Your task to perform on an android device: Find coffee shops on Maps Image 0: 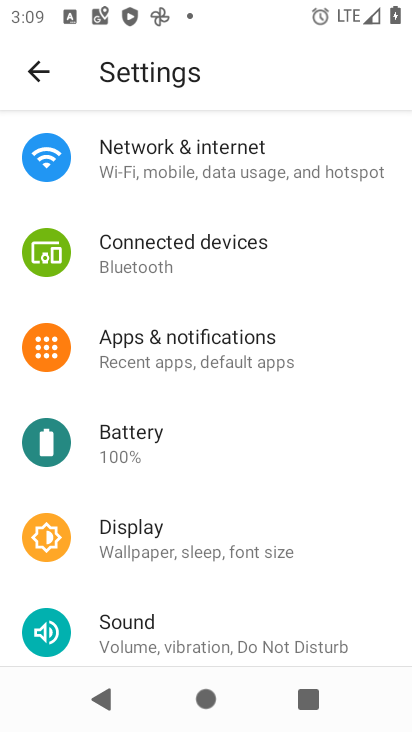
Step 0: press home button
Your task to perform on an android device: Find coffee shops on Maps Image 1: 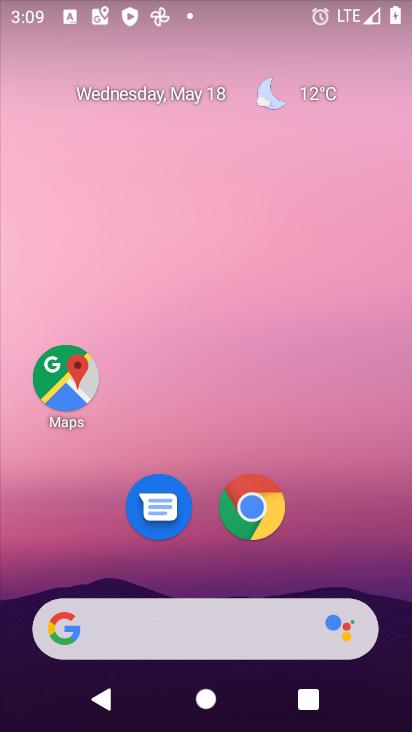
Step 1: click (65, 377)
Your task to perform on an android device: Find coffee shops on Maps Image 2: 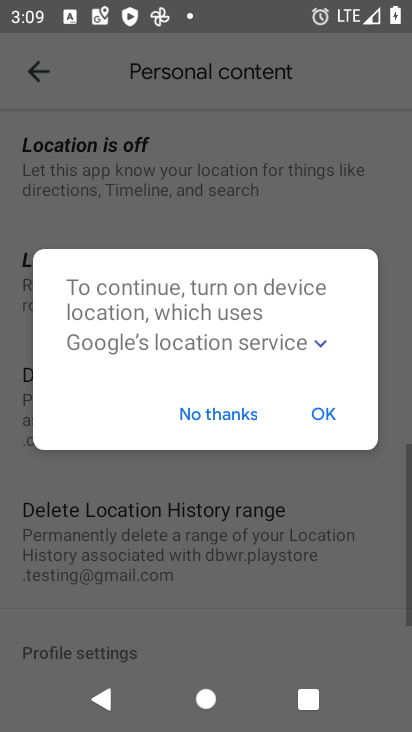
Step 2: press back button
Your task to perform on an android device: Find coffee shops on Maps Image 3: 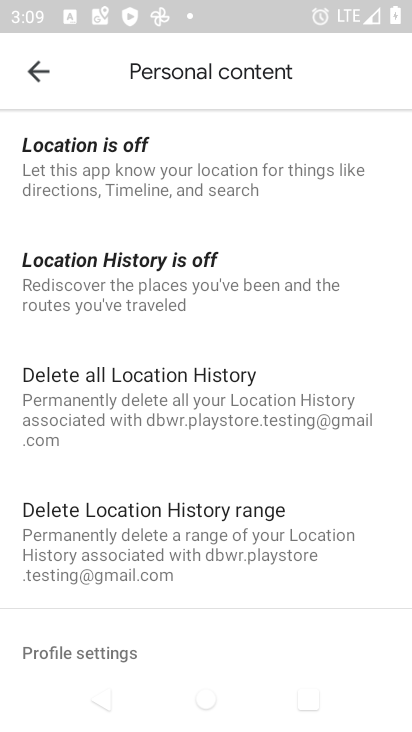
Step 3: press back button
Your task to perform on an android device: Find coffee shops on Maps Image 4: 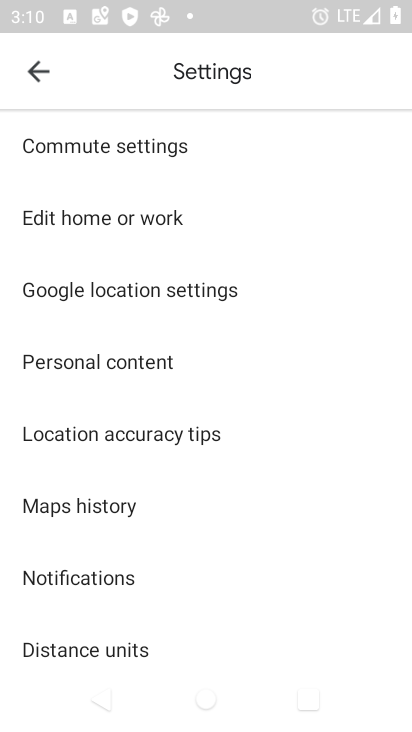
Step 4: press back button
Your task to perform on an android device: Find coffee shops on Maps Image 5: 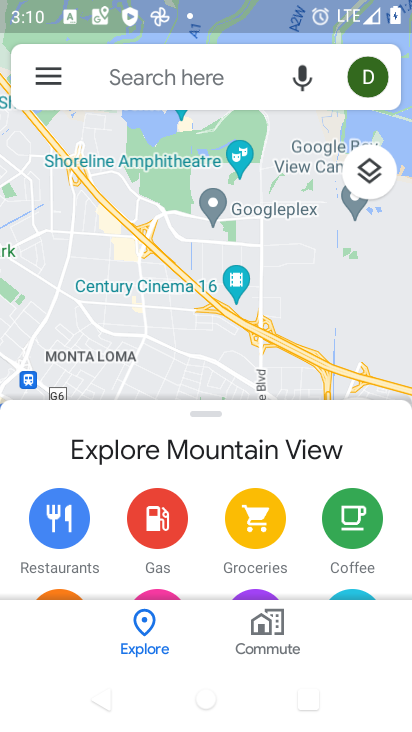
Step 5: press back button
Your task to perform on an android device: Find coffee shops on Maps Image 6: 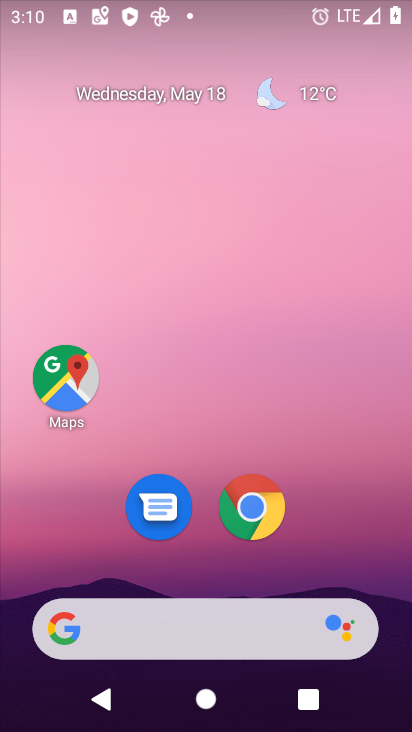
Step 6: click (66, 381)
Your task to perform on an android device: Find coffee shops on Maps Image 7: 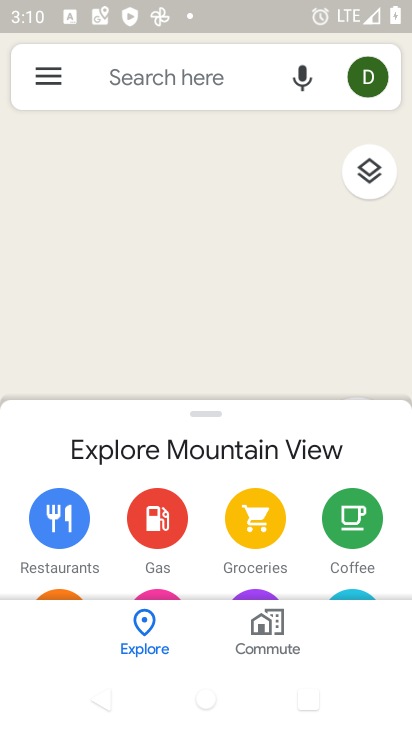
Step 7: click (157, 74)
Your task to perform on an android device: Find coffee shops on Maps Image 8: 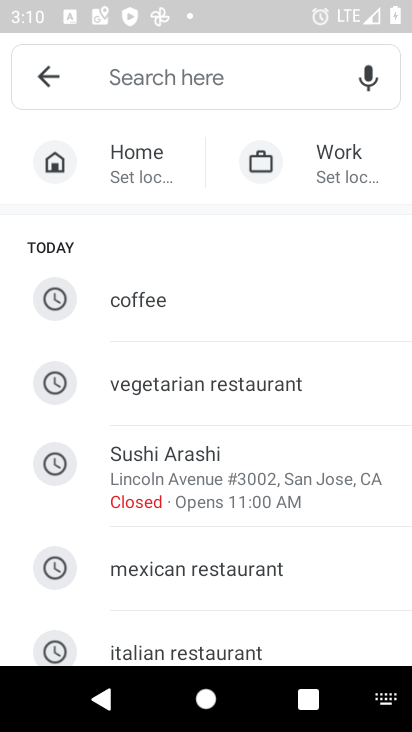
Step 8: type "coffee shop"
Your task to perform on an android device: Find coffee shops on Maps Image 9: 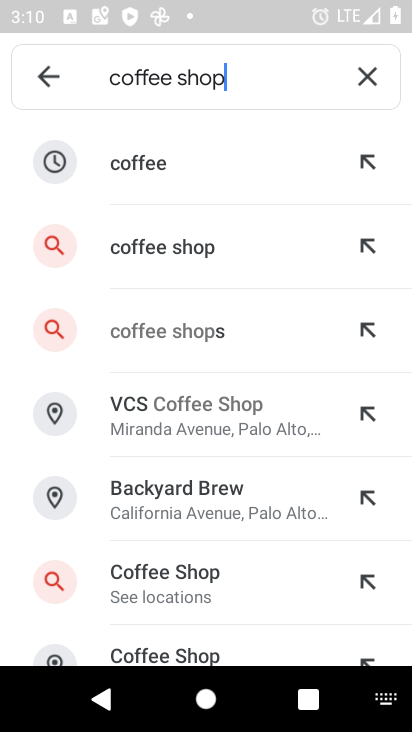
Step 9: click (202, 229)
Your task to perform on an android device: Find coffee shops on Maps Image 10: 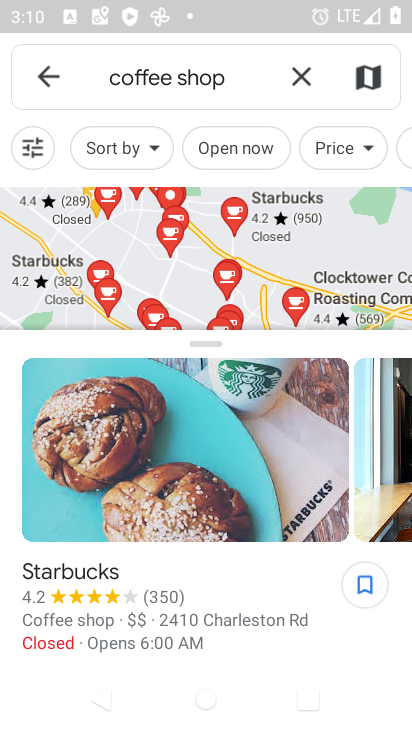
Step 10: task complete